Your task to perform on an android device: toggle sleep mode Image 0: 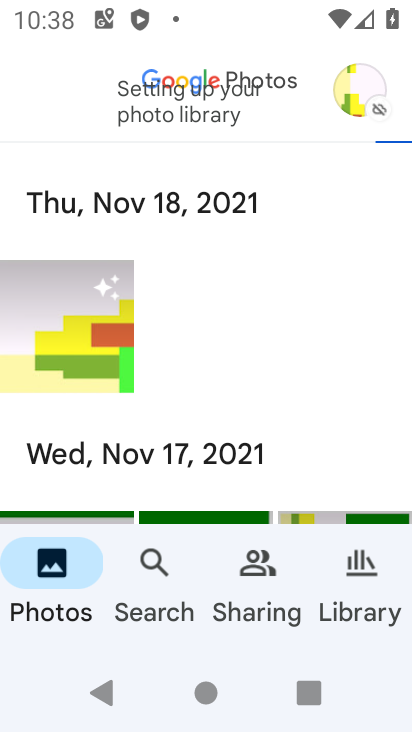
Step 0: press home button
Your task to perform on an android device: toggle sleep mode Image 1: 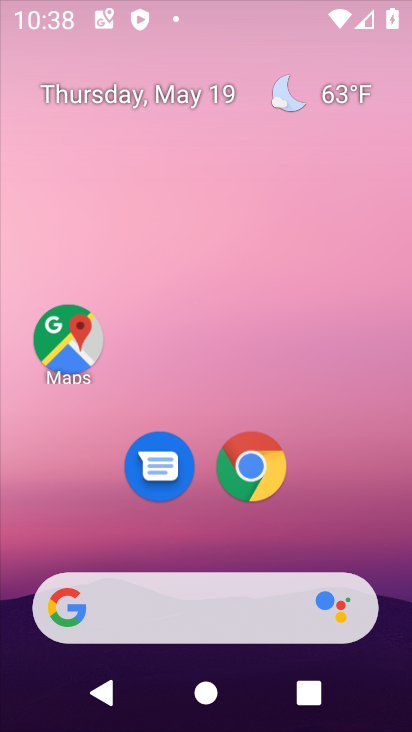
Step 1: drag from (387, 625) to (265, 40)
Your task to perform on an android device: toggle sleep mode Image 2: 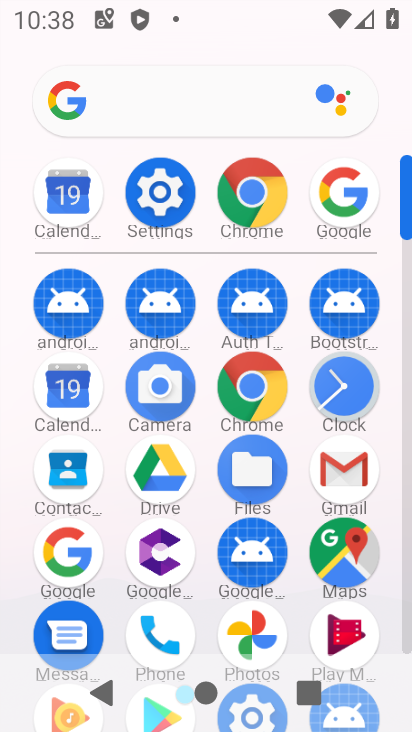
Step 2: click (160, 186)
Your task to perform on an android device: toggle sleep mode Image 3: 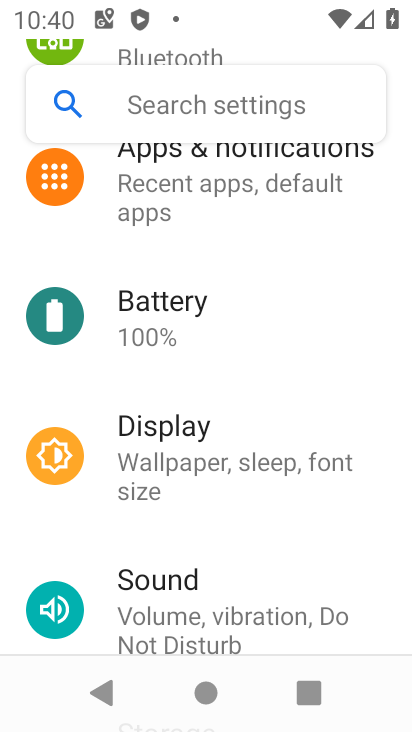
Step 3: task complete